Your task to perform on an android device: turn off location Image 0: 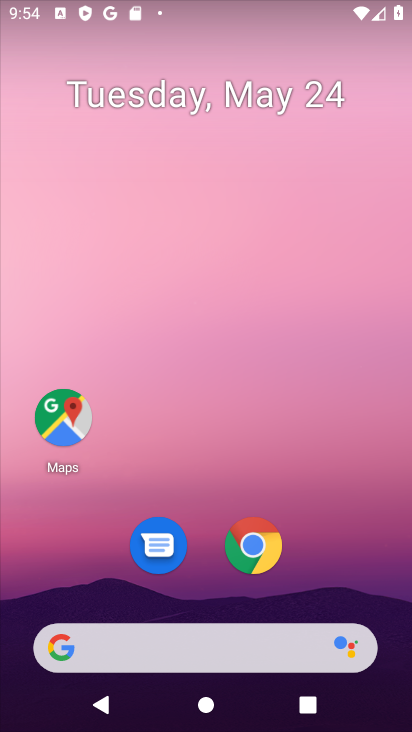
Step 0: drag from (203, 474) to (235, 21)
Your task to perform on an android device: turn off location Image 1: 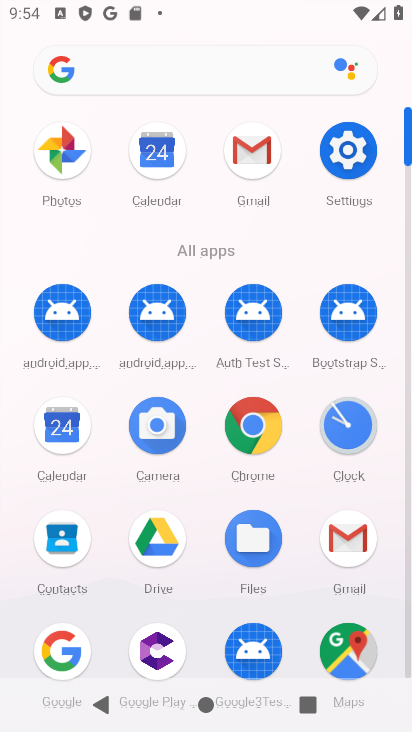
Step 1: click (329, 157)
Your task to perform on an android device: turn off location Image 2: 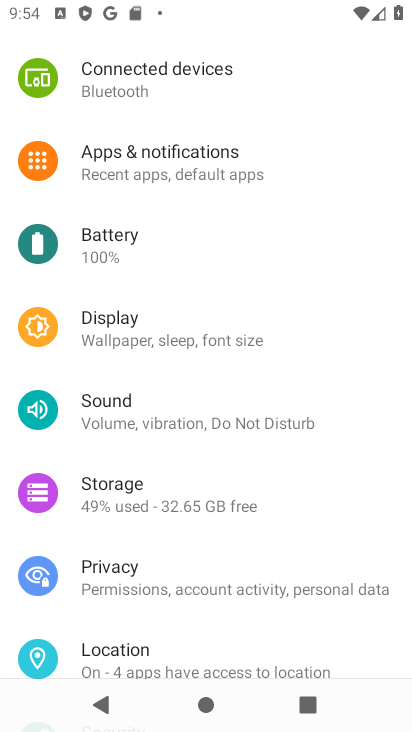
Step 2: drag from (236, 501) to (271, 193)
Your task to perform on an android device: turn off location Image 3: 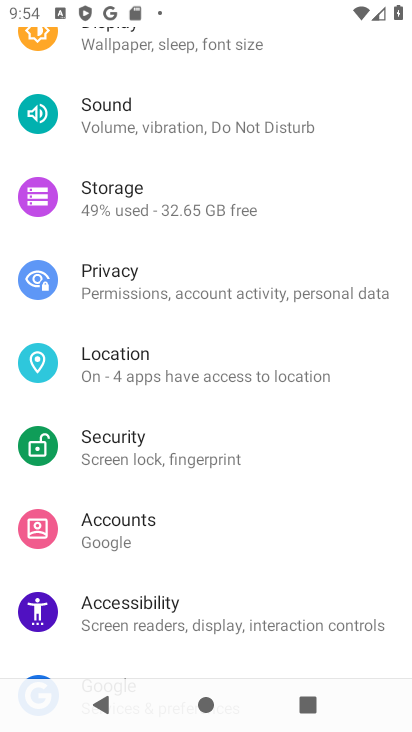
Step 3: click (235, 359)
Your task to perform on an android device: turn off location Image 4: 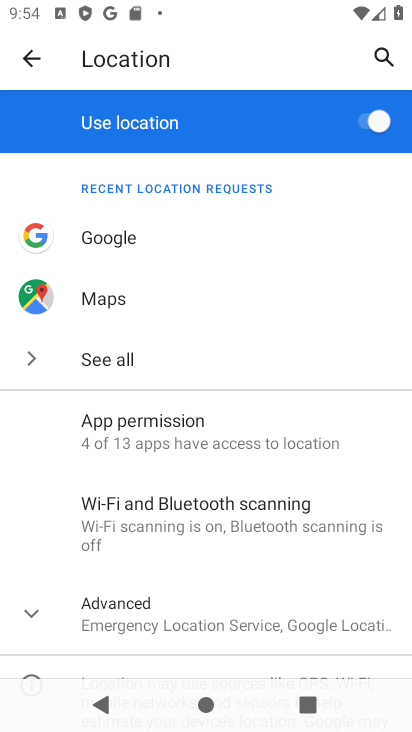
Step 4: click (368, 110)
Your task to perform on an android device: turn off location Image 5: 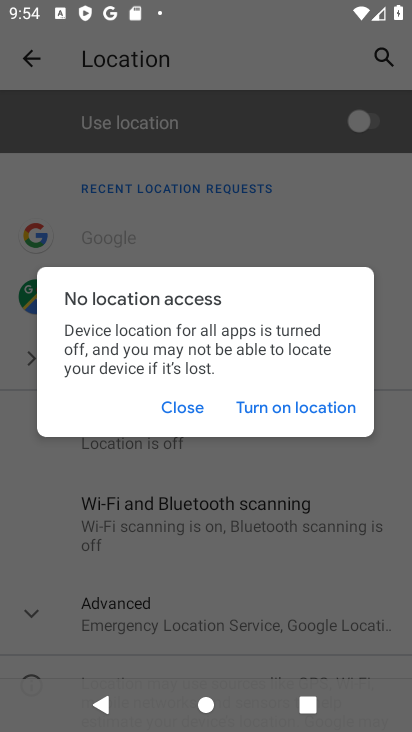
Step 5: click (185, 401)
Your task to perform on an android device: turn off location Image 6: 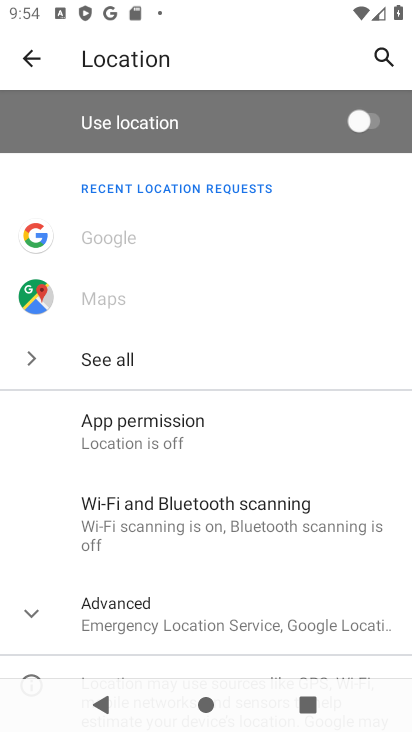
Step 6: task complete